Your task to perform on an android device: Open calendar and show me the second week of next month Image 0: 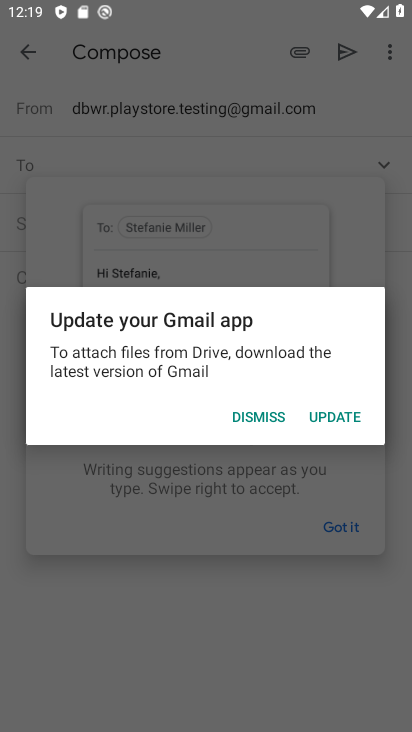
Step 0: press home button
Your task to perform on an android device: Open calendar and show me the second week of next month Image 1: 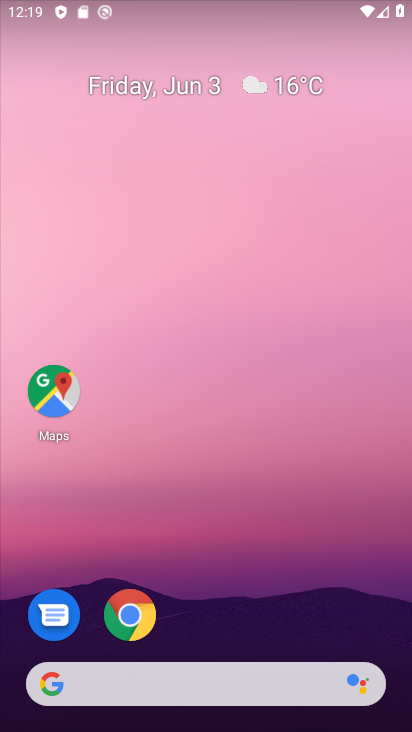
Step 1: drag from (223, 629) to (257, 322)
Your task to perform on an android device: Open calendar and show me the second week of next month Image 2: 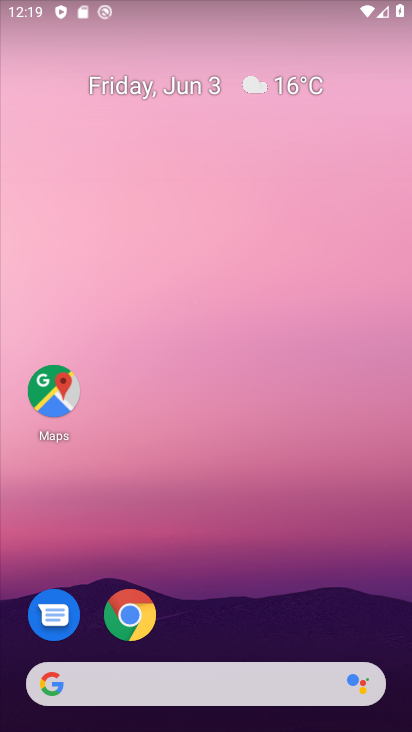
Step 2: drag from (197, 588) to (196, 267)
Your task to perform on an android device: Open calendar and show me the second week of next month Image 3: 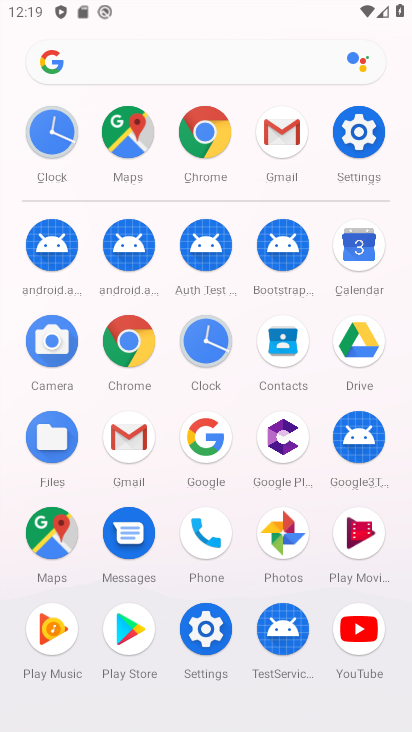
Step 3: click (353, 239)
Your task to perform on an android device: Open calendar and show me the second week of next month Image 4: 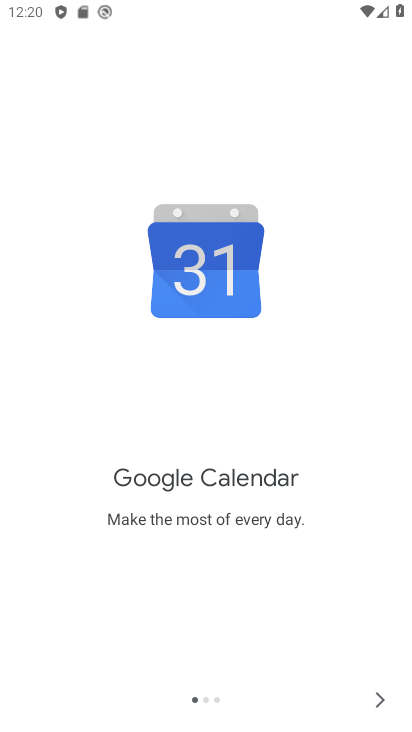
Step 4: click (368, 700)
Your task to perform on an android device: Open calendar and show me the second week of next month Image 5: 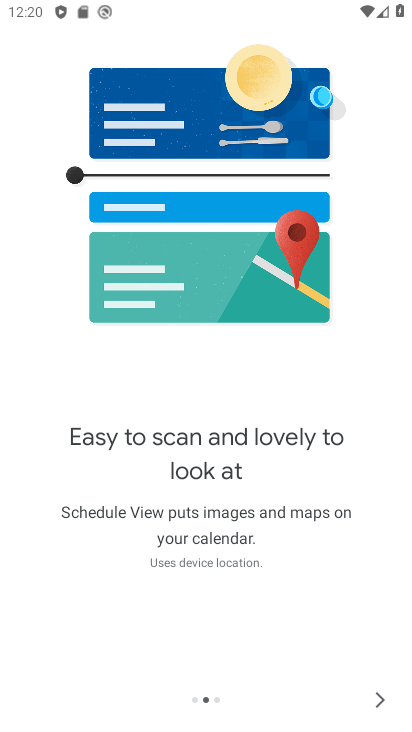
Step 5: click (371, 698)
Your task to perform on an android device: Open calendar and show me the second week of next month Image 6: 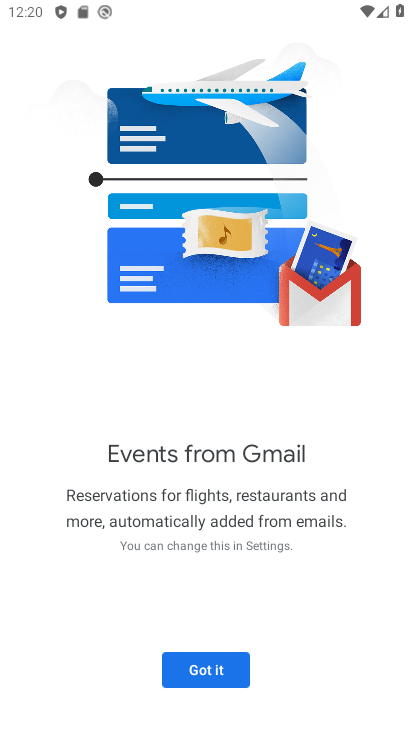
Step 6: click (371, 698)
Your task to perform on an android device: Open calendar and show me the second week of next month Image 7: 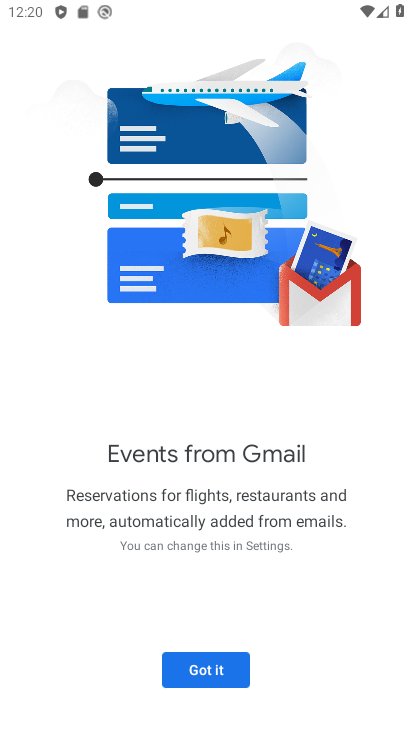
Step 7: click (240, 664)
Your task to perform on an android device: Open calendar and show me the second week of next month Image 8: 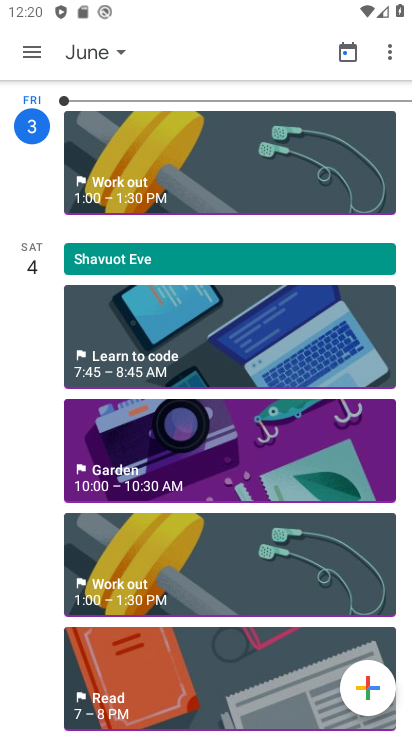
Step 8: click (30, 54)
Your task to perform on an android device: Open calendar and show me the second week of next month Image 9: 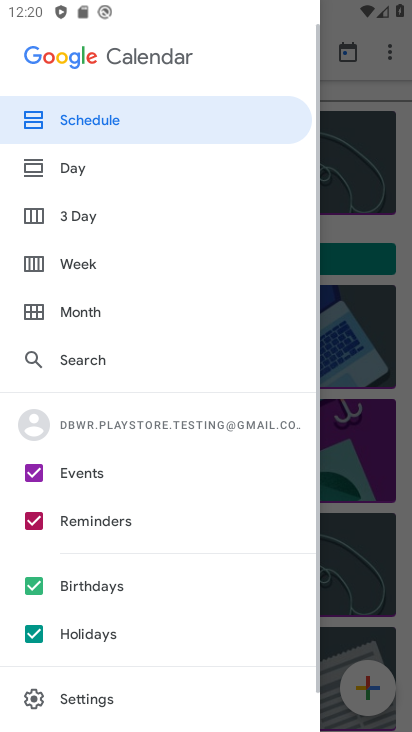
Step 9: click (96, 326)
Your task to perform on an android device: Open calendar and show me the second week of next month Image 10: 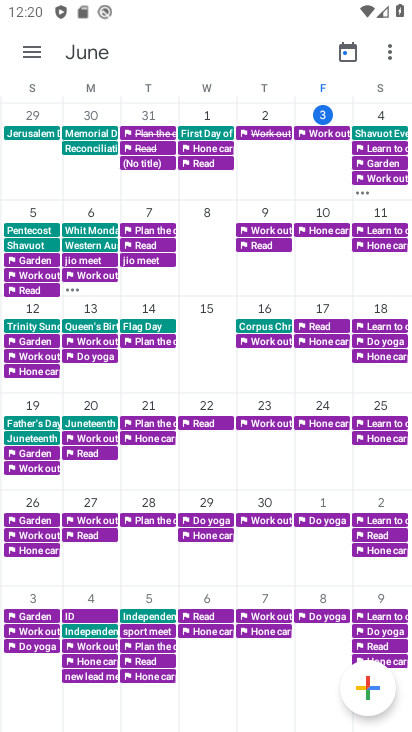
Step 10: task complete